Your task to perform on an android device: Play the last video I watched on Youtube Image 0: 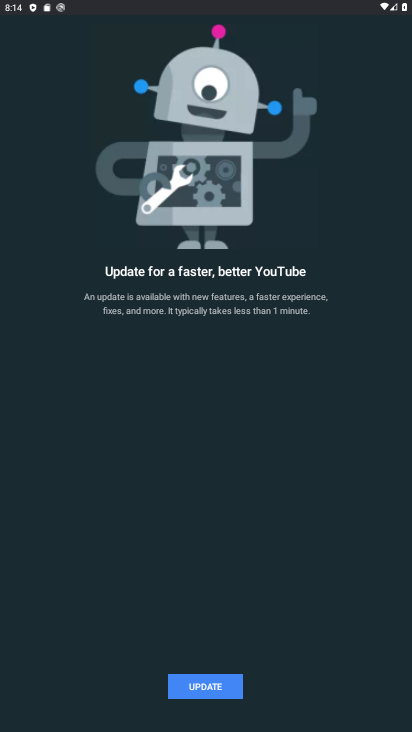
Step 0: press home button
Your task to perform on an android device: Play the last video I watched on Youtube Image 1: 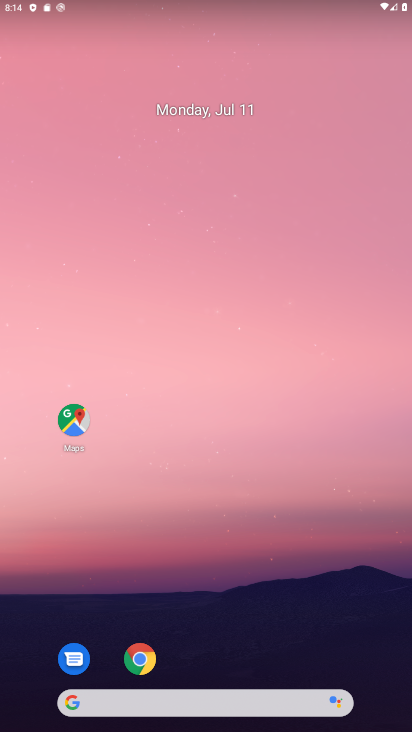
Step 1: drag from (223, 666) to (179, 254)
Your task to perform on an android device: Play the last video I watched on Youtube Image 2: 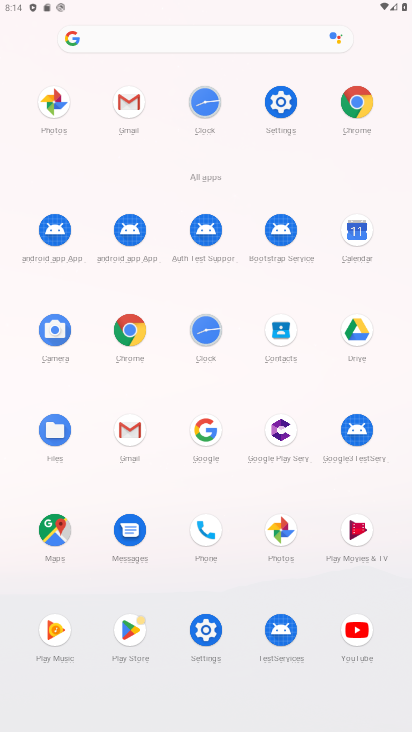
Step 2: click (357, 644)
Your task to perform on an android device: Play the last video I watched on Youtube Image 3: 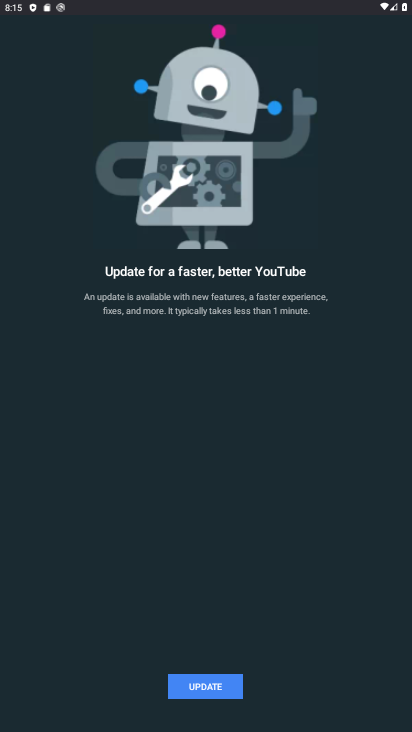
Step 3: click (207, 685)
Your task to perform on an android device: Play the last video I watched on Youtube Image 4: 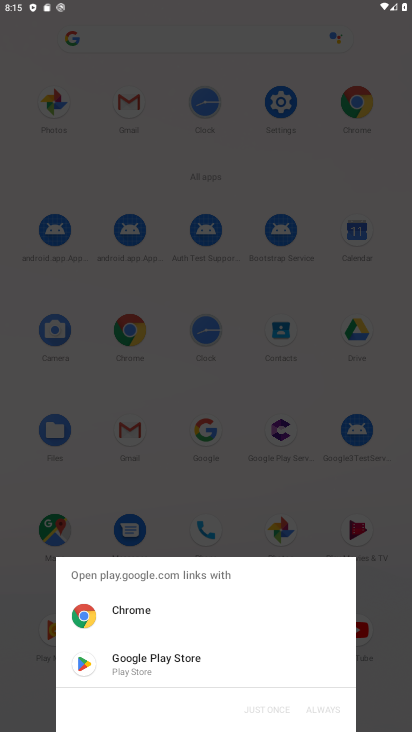
Step 4: click (168, 665)
Your task to perform on an android device: Play the last video I watched on Youtube Image 5: 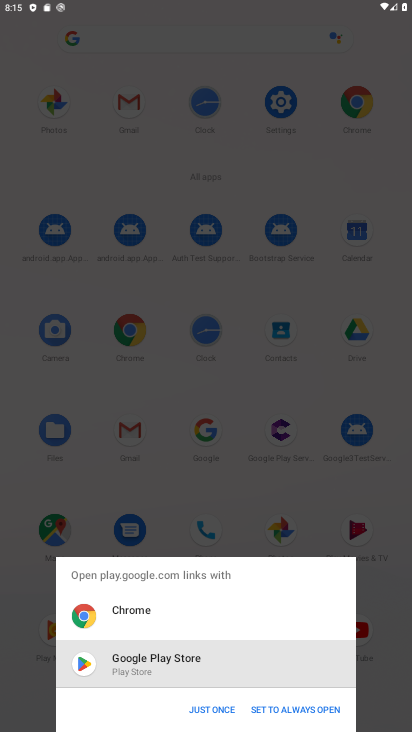
Step 5: click (197, 712)
Your task to perform on an android device: Play the last video I watched on Youtube Image 6: 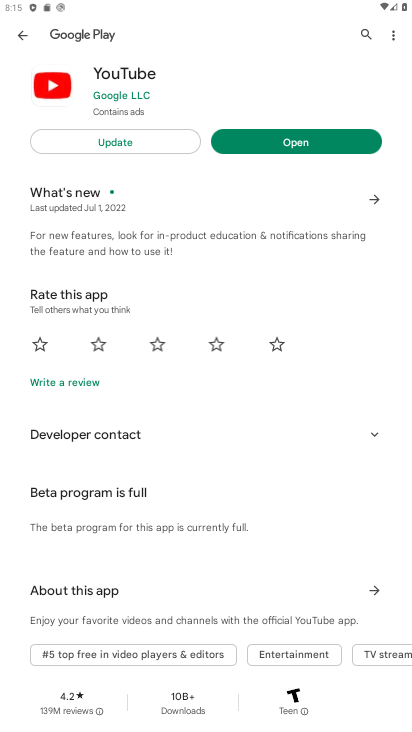
Step 6: click (134, 146)
Your task to perform on an android device: Play the last video I watched on Youtube Image 7: 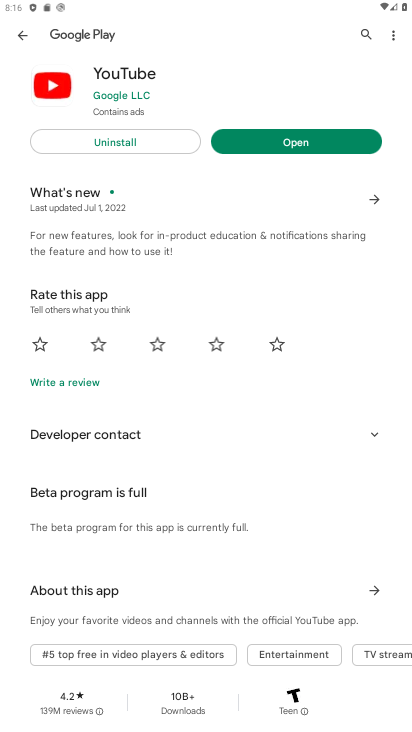
Step 7: click (287, 141)
Your task to perform on an android device: Play the last video I watched on Youtube Image 8: 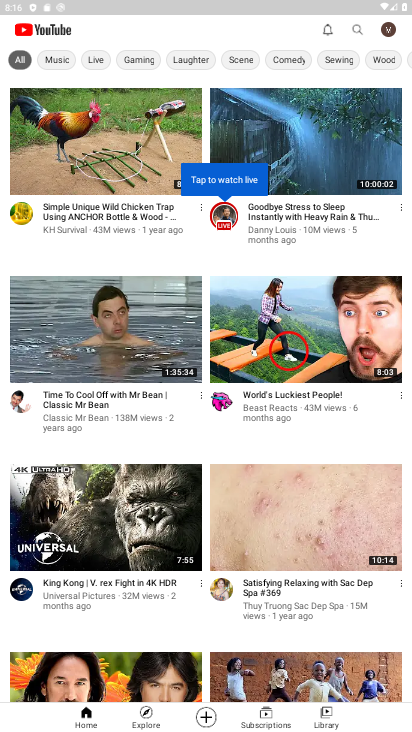
Step 8: click (331, 718)
Your task to perform on an android device: Play the last video I watched on Youtube Image 9: 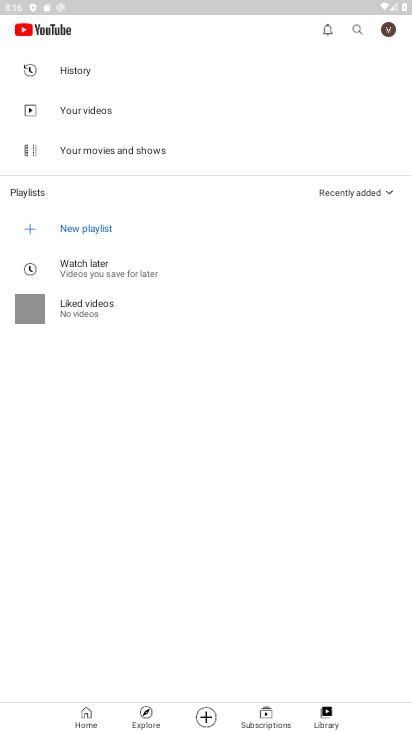
Step 9: click (104, 71)
Your task to perform on an android device: Play the last video I watched on Youtube Image 10: 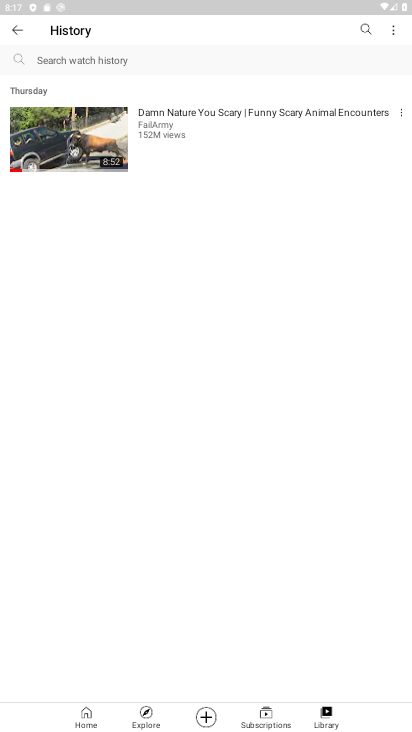
Step 10: click (236, 154)
Your task to perform on an android device: Play the last video I watched on Youtube Image 11: 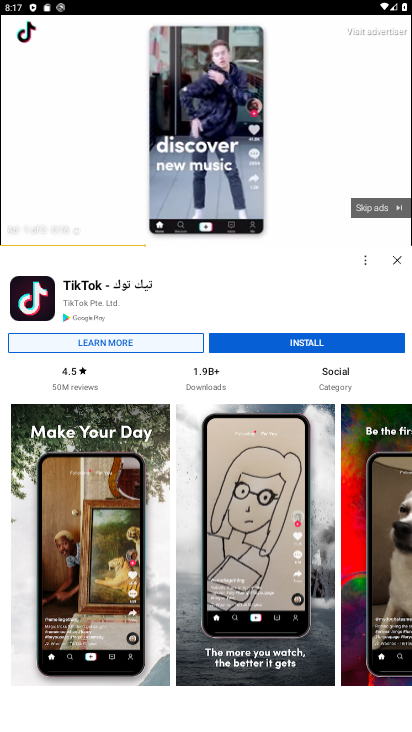
Step 11: click (264, 137)
Your task to perform on an android device: Play the last video I watched on Youtube Image 12: 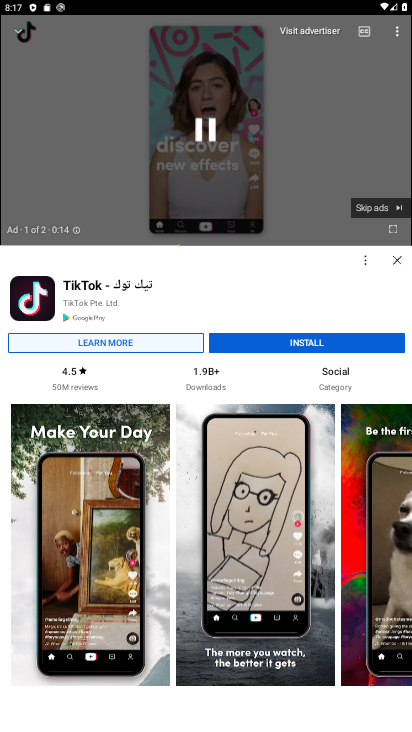
Step 12: click (219, 137)
Your task to perform on an android device: Play the last video I watched on Youtube Image 13: 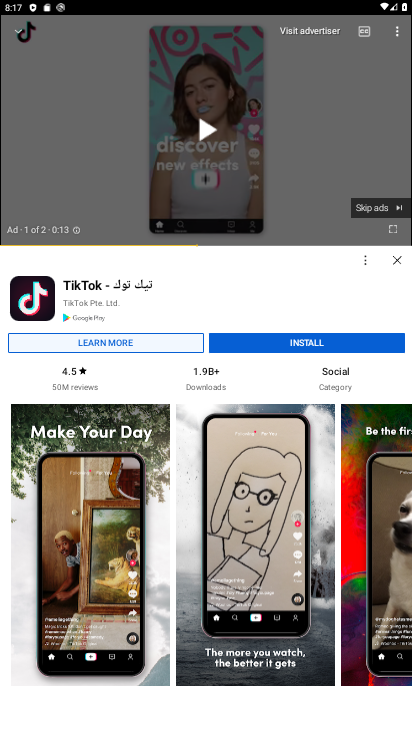
Step 13: task complete